Your task to perform on an android device: turn on improve location accuracy Image 0: 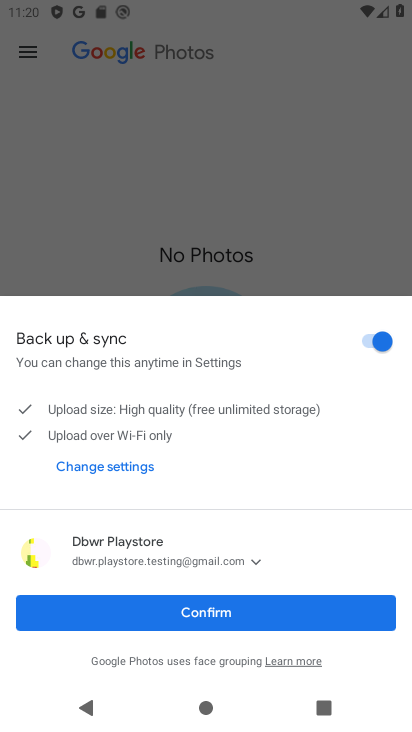
Step 0: press home button
Your task to perform on an android device: turn on improve location accuracy Image 1: 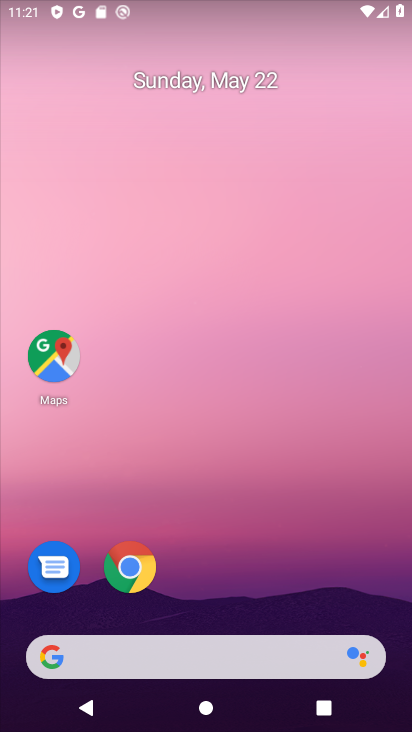
Step 1: drag from (202, 618) to (393, 308)
Your task to perform on an android device: turn on improve location accuracy Image 2: 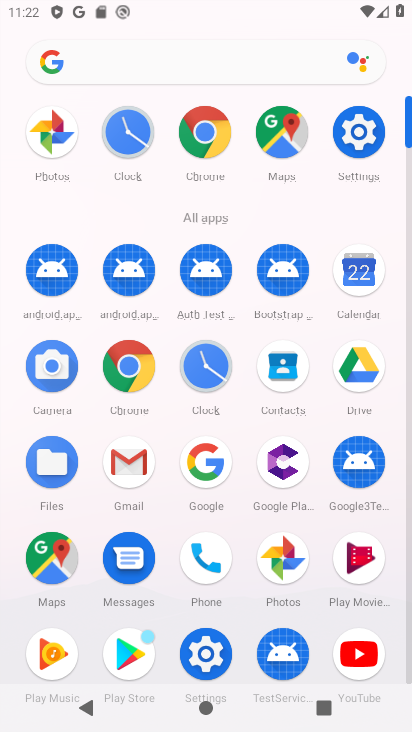
Step 2: click (361, 136)
Your task to perform on an android device: turn on improve location accuracy Image 3: 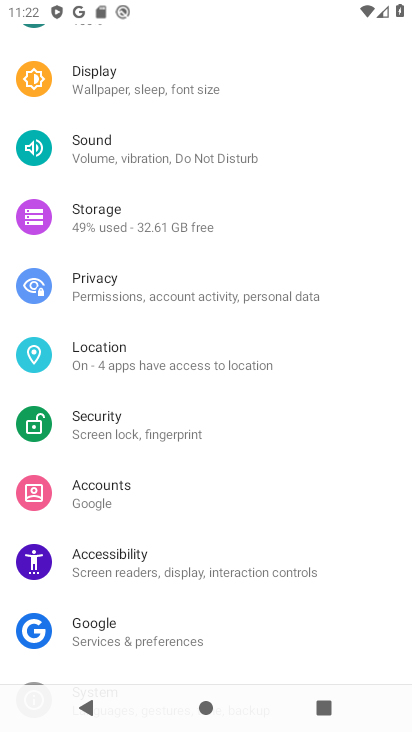
Step 3: click (155, 355)
Your task to perform on an android device: turn on improve location accuracy Image 4: 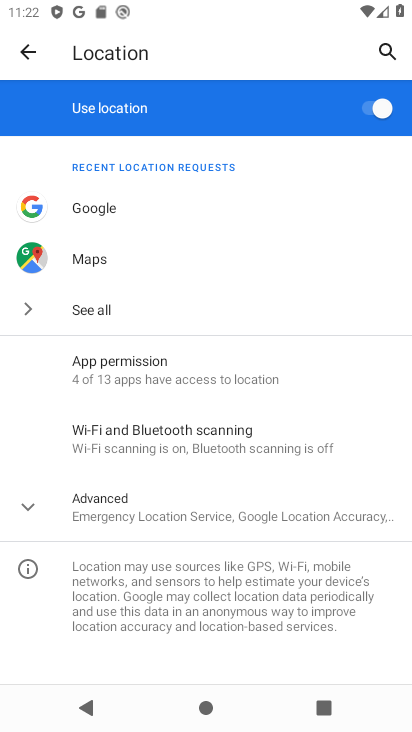
Step 4: click (124, 511)
Your task to perform on an android device: turn on improve location accuracy Image 5: 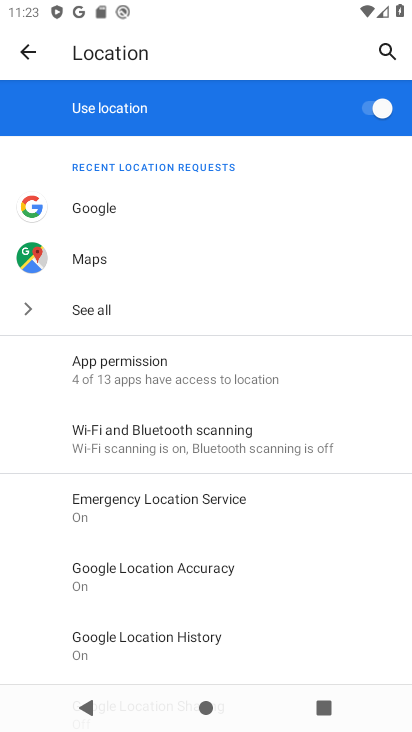
Step 5: click (136, 589)
Your task to perform on an android device: turn on improve location accuracy Image 6: 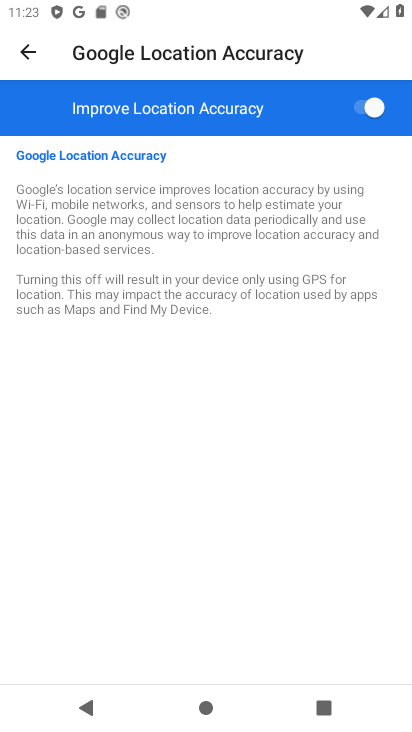
Step 6: task complete